Your task to perform on an android device: What's the weather going to be tomorrow? Image 0: 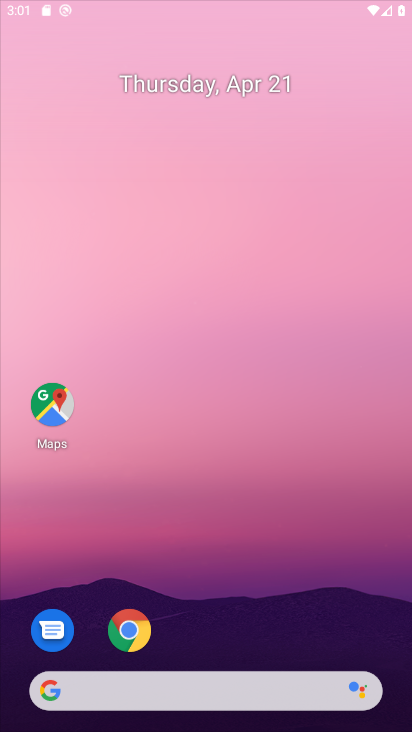
Step 0: click (372, 205)
Your task to perform on an android device: What's the weather going to be tomorrow? Image 1: 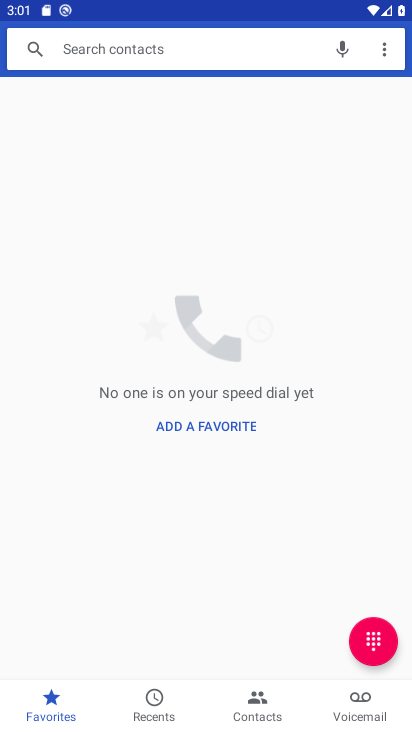
Step 1: drag from (224, 528) to (323, 245)
Your task to perform on an android device: What's the weather going to be tomorrow? Image 2: 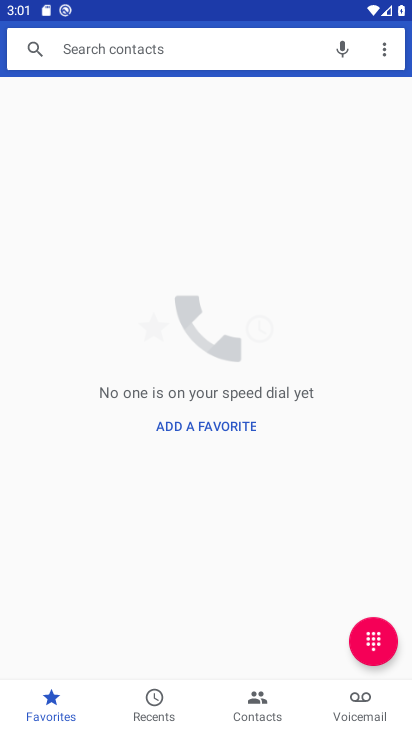
Step 2: press home button
Your task to perform on an android device: What's the weather going to be tomorrow? Image 3: 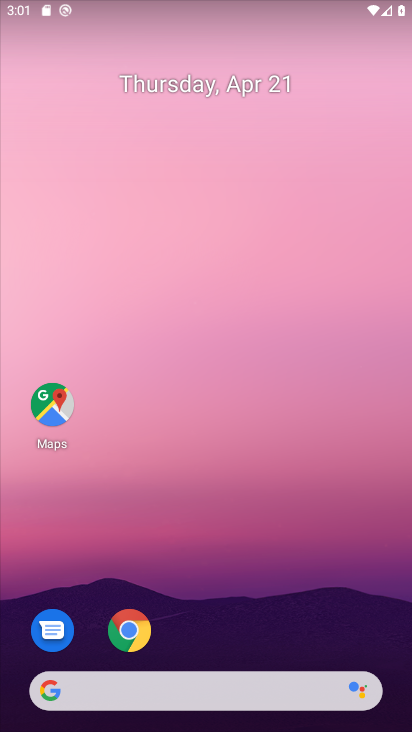
Step 3: click (116, 634)
Your task to perform on an android device: What's the weather going to be tomorrow? Image 4: 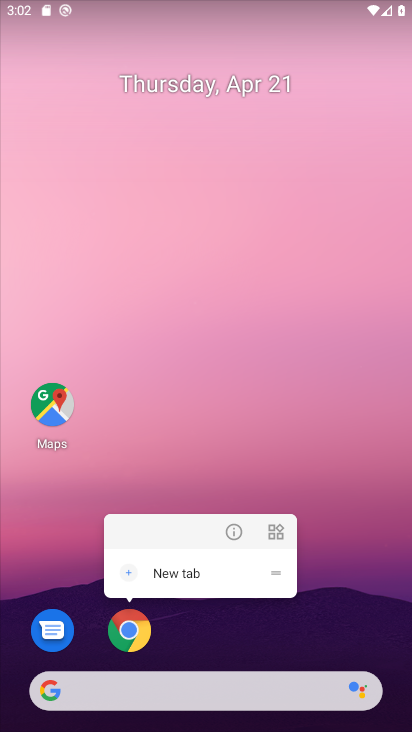
Step 4: drag from (214, 629) to (357, 82)
Your task to perform on an android device: What's the weather going to be tomorrow? Image 5: 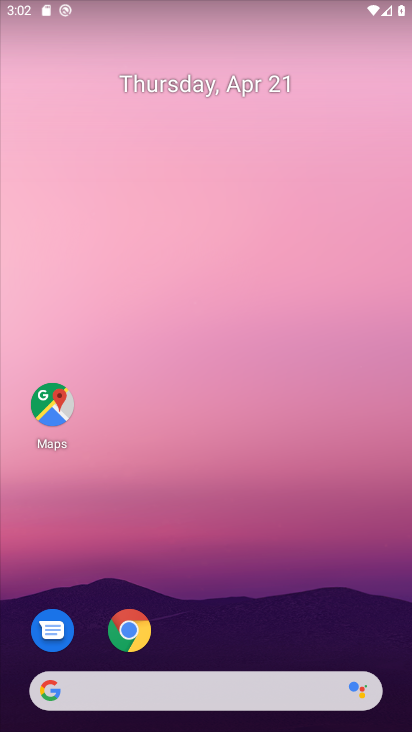
Step 5: drag from (212, 535) to (303, 145)
Your task to perform on an android device: What's the weather going to be tomorrow? Image 6: 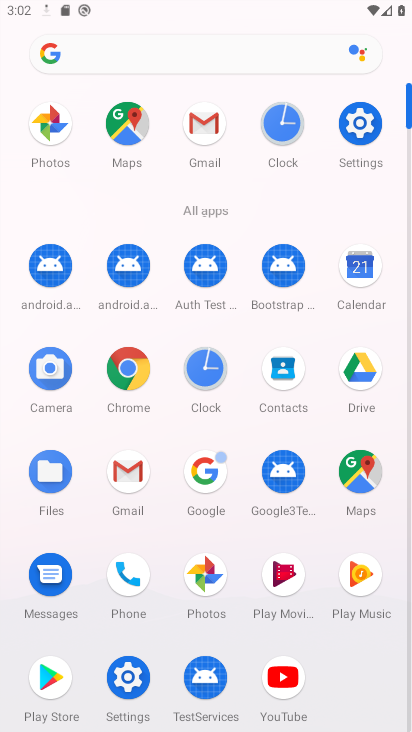
Step 6: click (128, 366)
Your task to perform on an android device: What's the weather going to be tomorrow? Image 7: 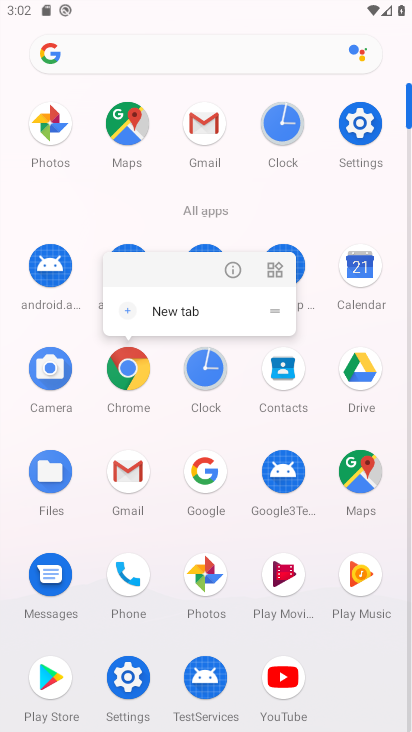
Step 7: click (228, 266)
Your task to perform on an android device: What's the weather going to be tomorrow? Image 8: 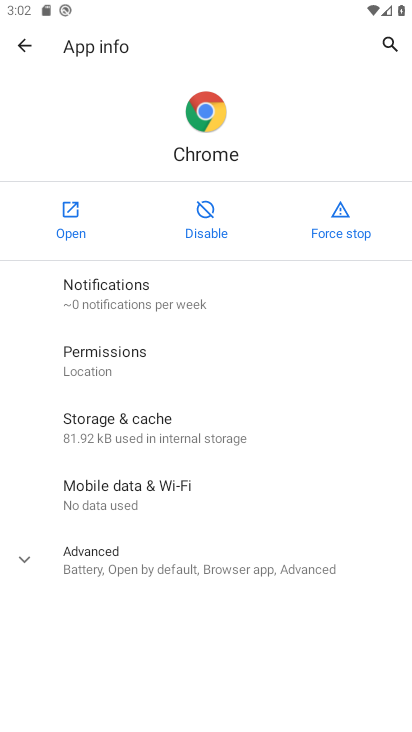
Step 8: click (63, 222)
Your task to perform on an android device: What's the weather going to be tomorrow? Image 9: 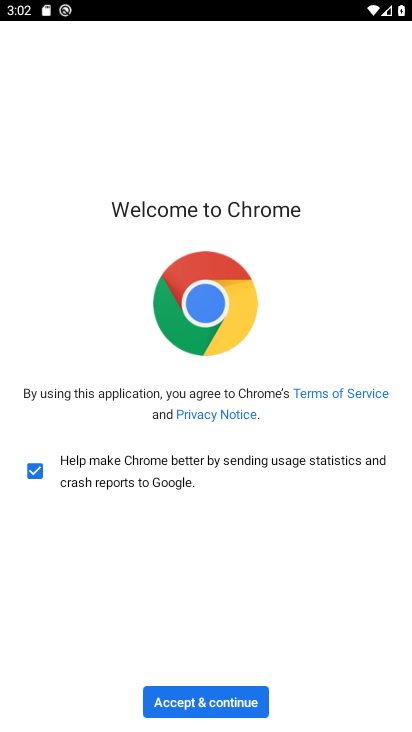
Step 9: click (223, 712)
Your task to perform on an android device: What's the weather going to be tomorrow? Image 10: 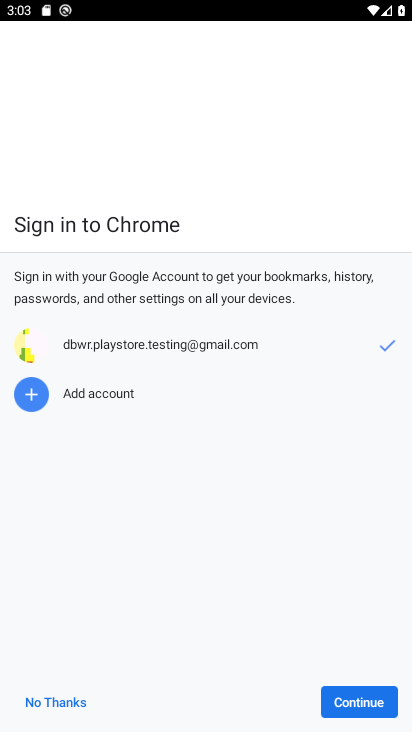
Step 10: click (361, 691)
Your task to perform on an android device: What's the weather going to be tomorrow? Image 11: 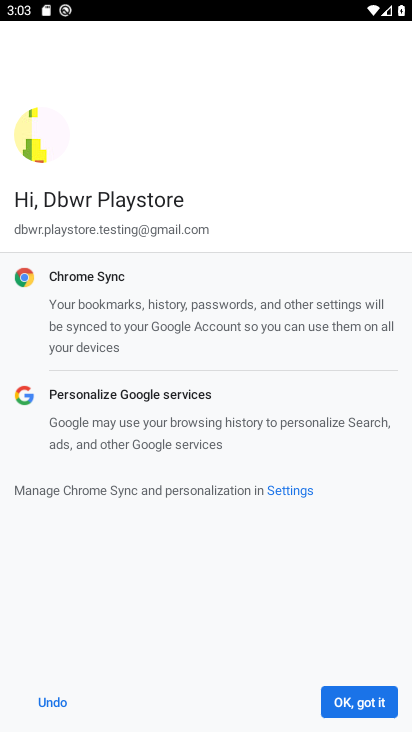
Step 11: drag from (257, 581) to (281, 303)
Your task to perform on an android device: What's the weather going to be tomorrow? Image 12: 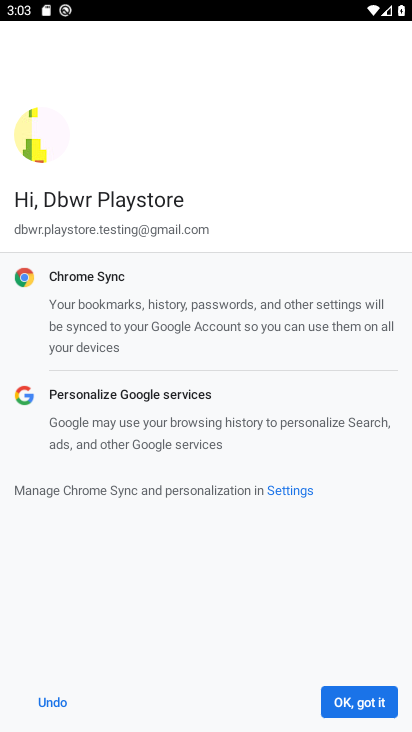
Step 12: click (371, 710)
Your task to perform on an android device: What's the weather going to be tomorrow? Image 13: 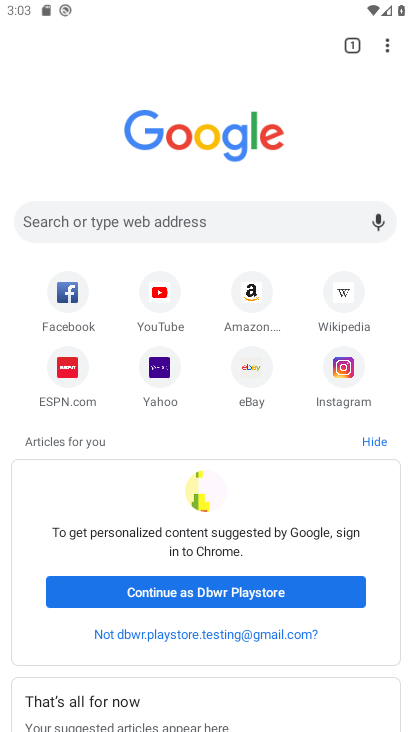
Step 13: drag from (249, 504) to (320, 247)
Your task to perform on an android device: What's the weather going to be tomorrow? Image 14: 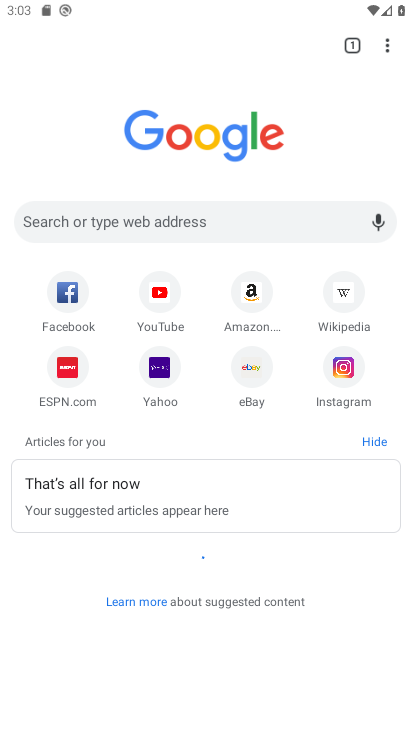
Step 14: click (190, 233)
Your task to perform on an android device: What's the weather going to be tomorrow? Image 15: 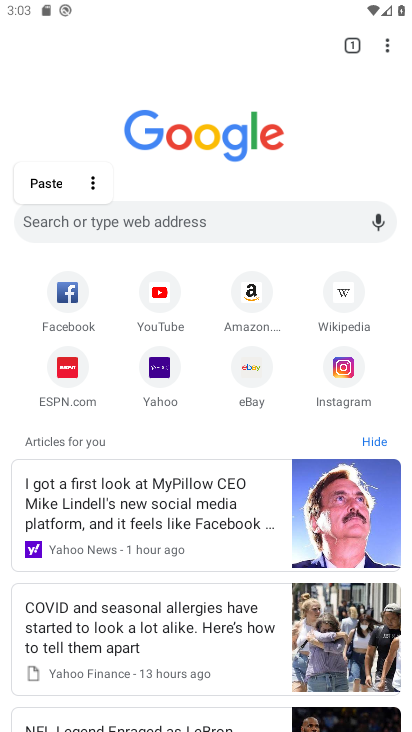
Step 15: type "weather tomorrow"
Your task to perform on an android device: What's the weather going to be tomorrow? Image 16: 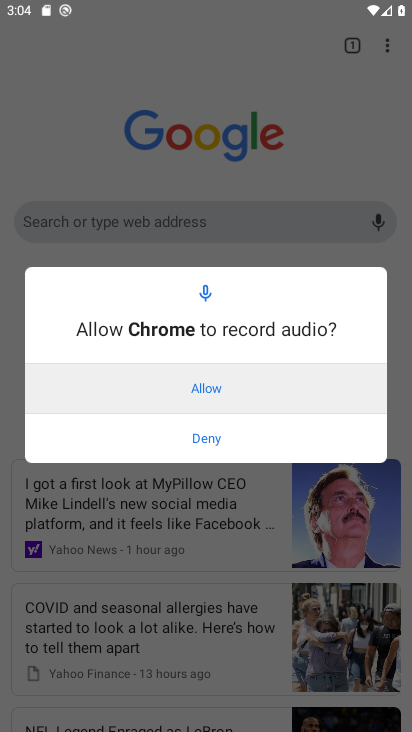
Step 16: click (226, 383)
Your task to perform on an android device: What's the weather going to be tomorrow? Image 17: 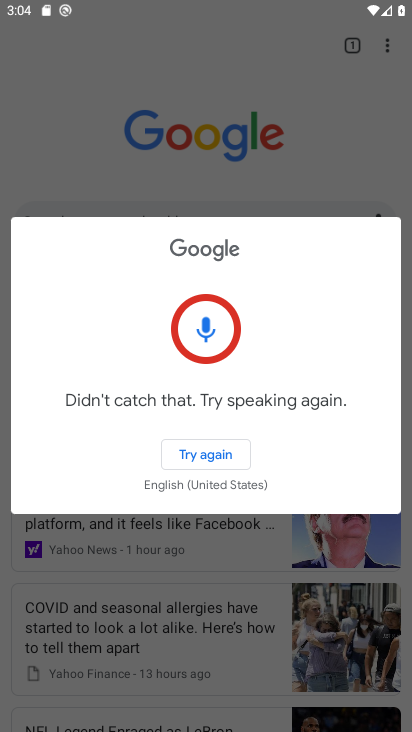
Step 17: click (197, 458)
Your task to perform on an android device: What's the weather going to be tomorrow? Image 18: 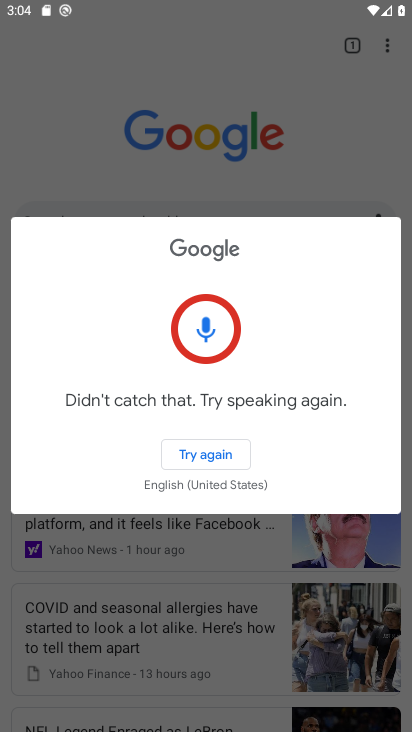
Step 18: drag from (221, 529) to (323, 301)
Your task to perform on an android device: What's the weather going to be tomorrow? Image 19: 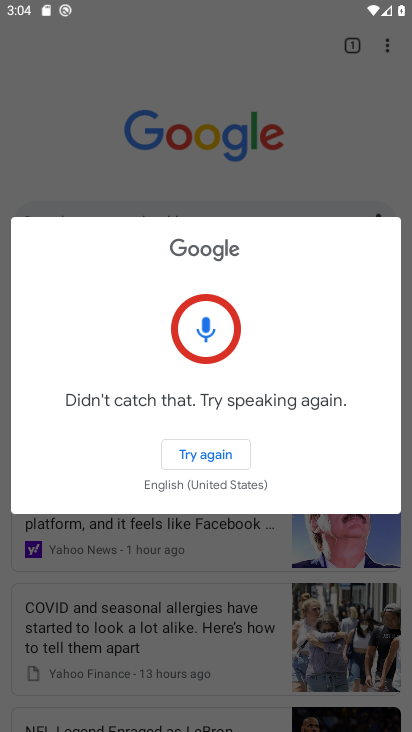
Step 19: drag from (200, 535) to (340, 232)
Your task to perform on an android device: What's the weather going to be tomorrow? Image 20: 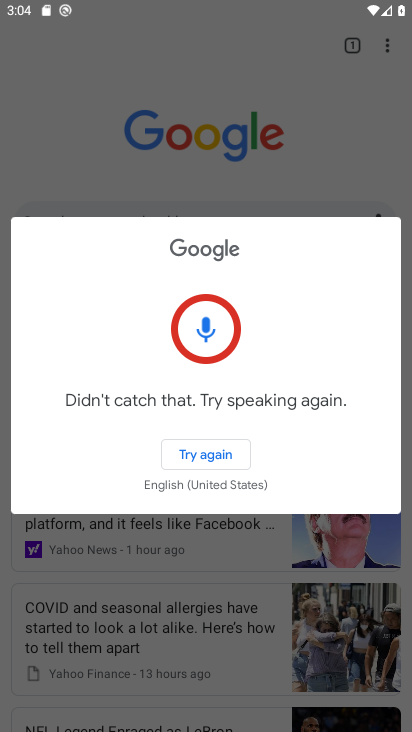
Step 20: click (294, 114)
Your task to perform on an android device: What's the weather going to be tomorrow? Image 21: 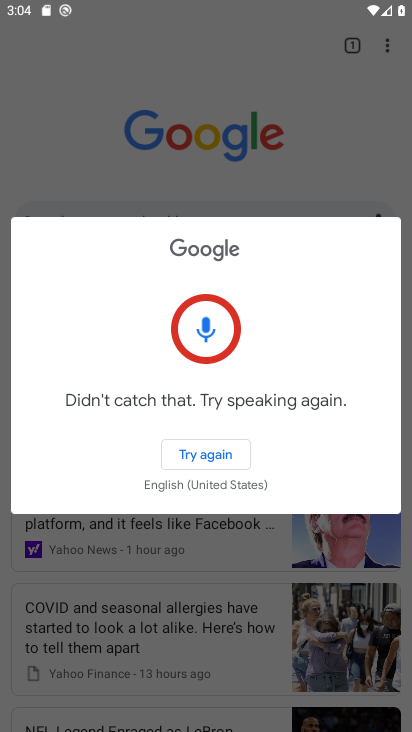
Step 21: click (292, 185)
Your task to perform on an android device: What's the weather going to be tomorrow? Image 22: 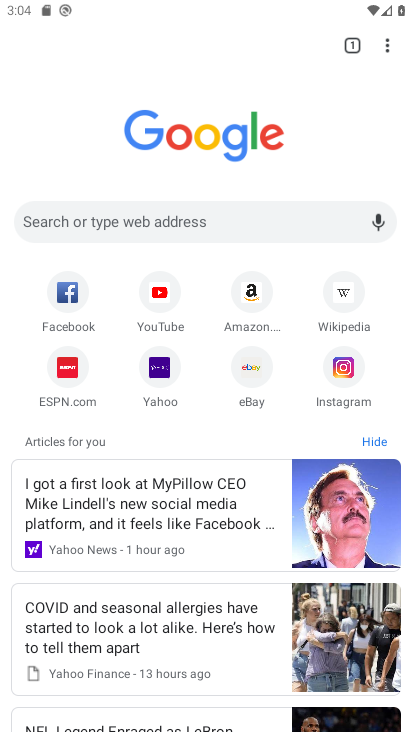
Step 22: click (170, 468)
Your task to perform on an android device: What's the weather going to be tomorrow? Image 23: 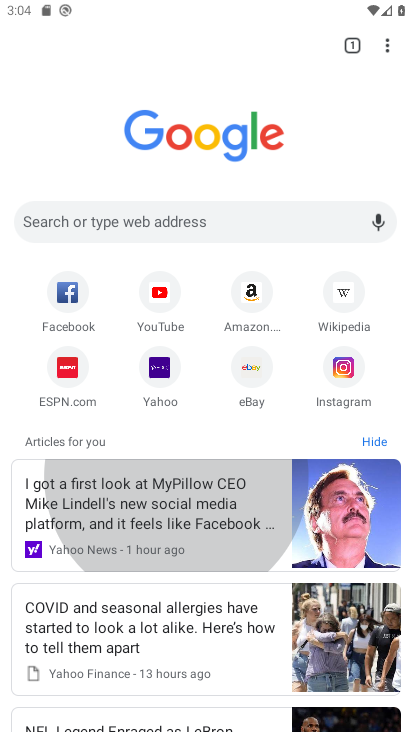
Step 23: click (187, 467)
Your task to perform on an android device: What's the weather going to be tomorrow? Image 24: 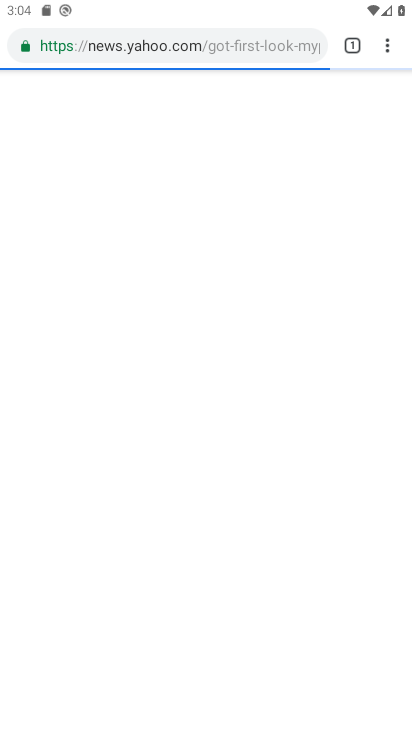
Step 24: click (149, 50)
Your task to perform on an android device: What's the weather going to be tomorrow? Image 25: 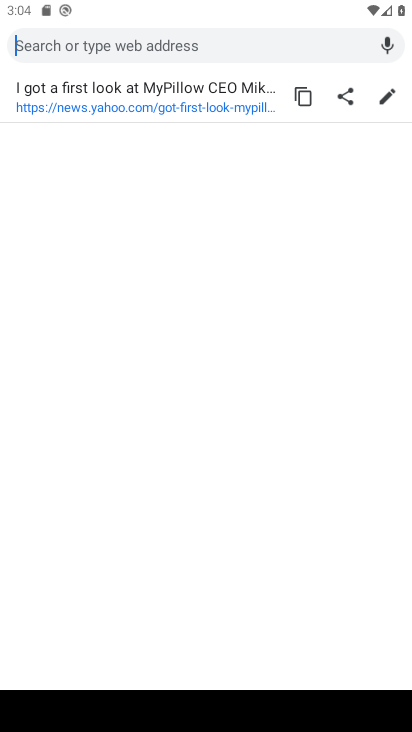
Step 25: type "weather tomorrow"
Your task to perform on an android device: What's the weather going to be tomorrow? Image 26: 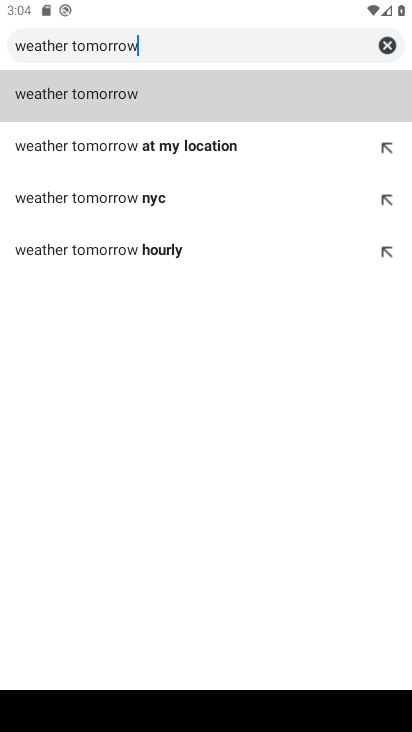
Step 26: click (49, 87)
Your task to perform on an android device: What's the weather going to be tomorrow? Image 27: 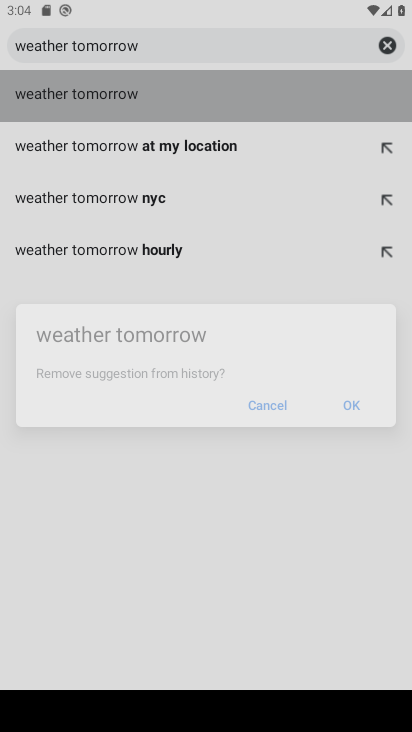
Step 27: task complete